Your task to perform on an android device: visit the assistant section in the google photos Image 0: 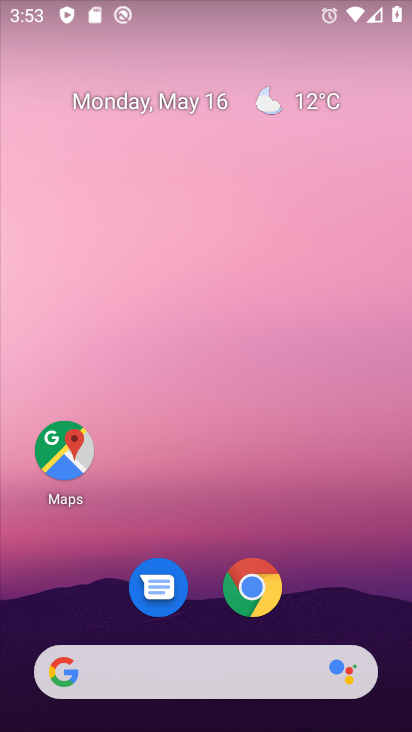
Step 0: click (364, 371)
Your task to perform on an android device: visit the assistant section in the google photos Image 1: 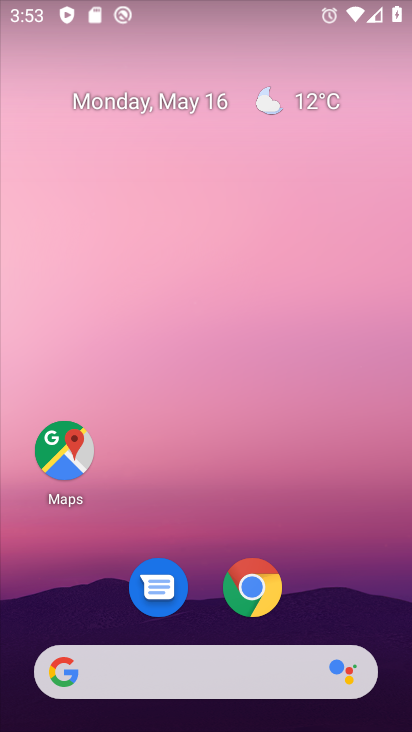
Step 1: drag from (364, 596) to (348, 430)
Your task to perform on an android device: visit the assistant section in the google photos Image 2: 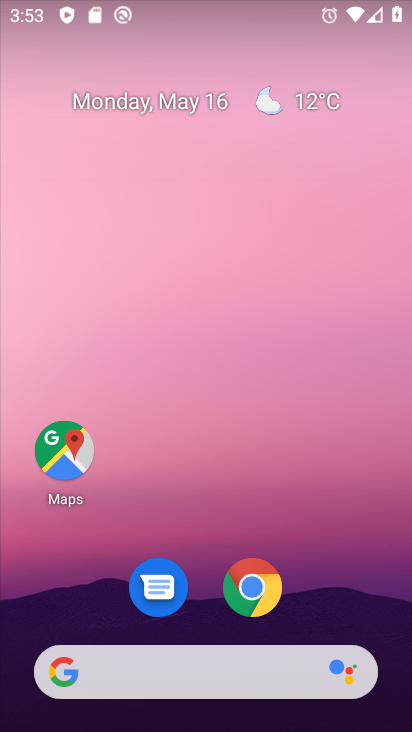
Step 2: click (374, 246)
Your task to perform on an android device: visit the assistant section in the google photos Image 3: 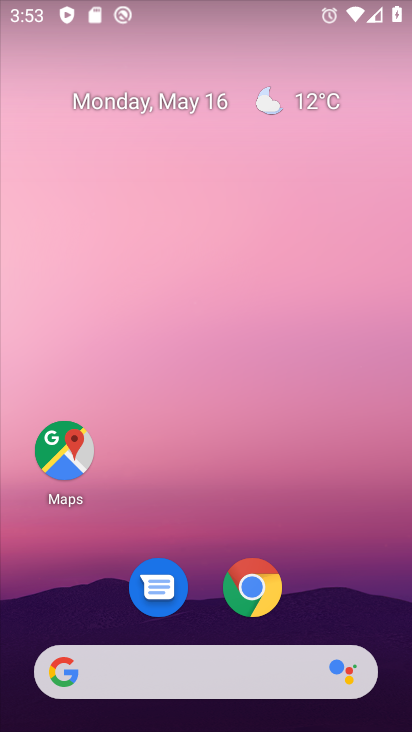
Step 3: drag from (392, 607) to (353, 132)
Your task to perform on an android device: visit the assistant section in the google photos Image 4: 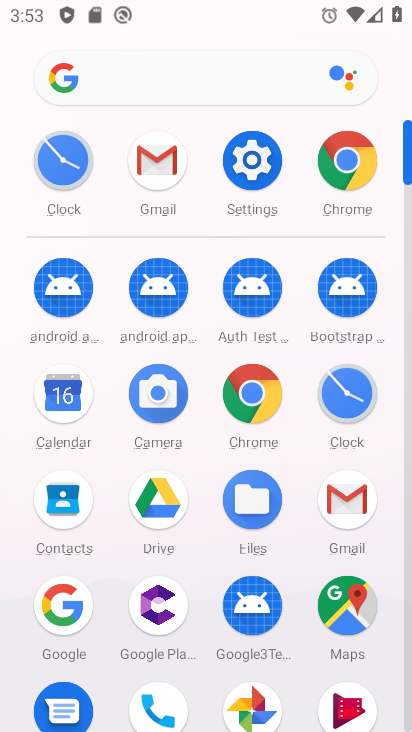
Step 4: click (250, 689)
Your task to perform on an android device: visit the assistant section in the google photos Image 5: 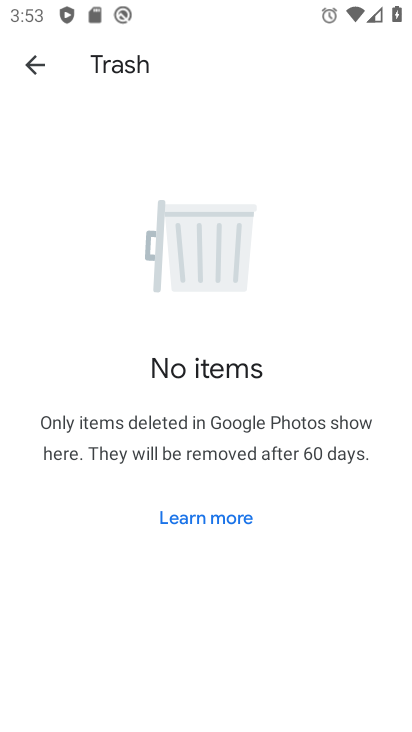
Step 5: click (35, 68)
Your task to perform on an android device: visit the assistant section in the google photos Image 6: 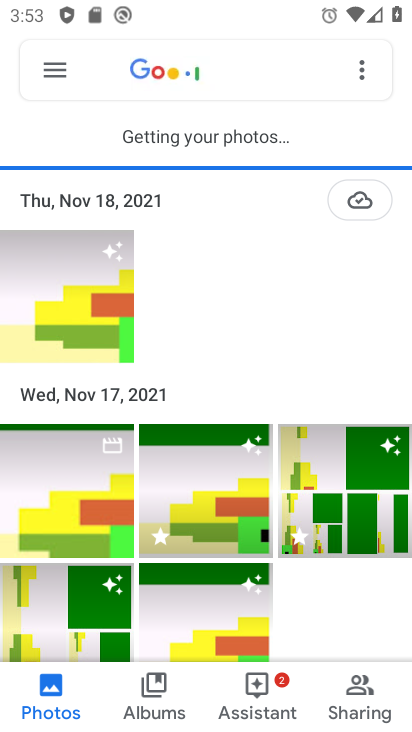
Step 6: click (250, 681)
Your task to perform on an android device: visit the assistant section in the google photos Image 7: 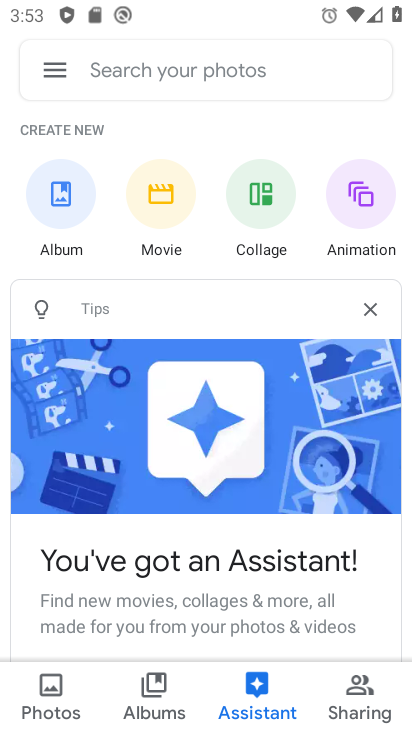
Step 7: task complete